Your task to perform on an android device: turn on data saver in the chrome app Image 0: 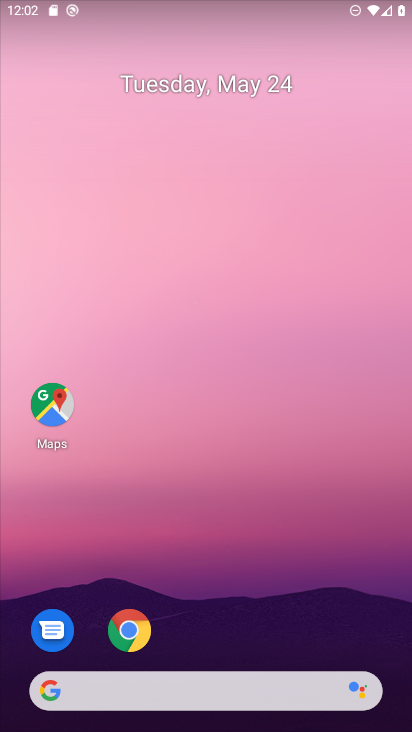
Step 0: click (133, 625)
Your task to perform on an android device: turn on data saver in the chrome app Image 1: 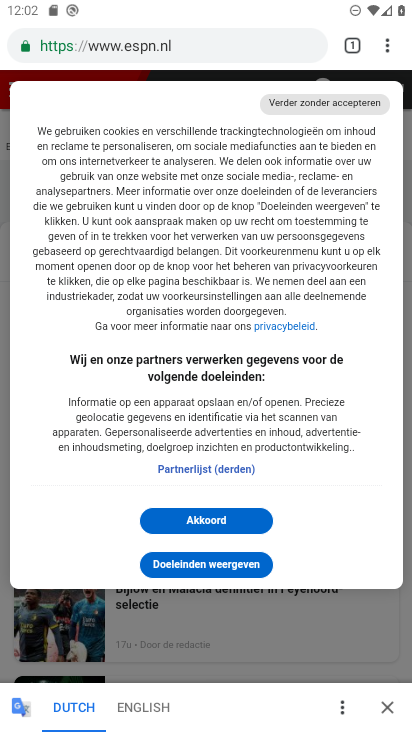
Step 1: click (387, 44)
Your task to perform on an android device: turn on data saver in the chrome app Image 2: 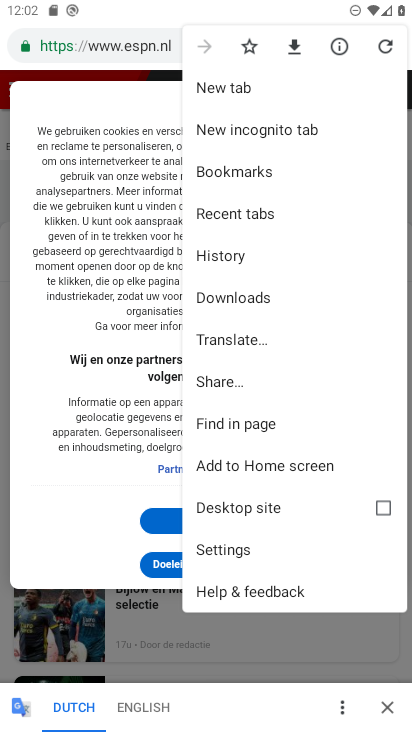
Step 2: click (229, 553)
Your task to perform on an android device: turn on data saver in the chrome app Image 3: 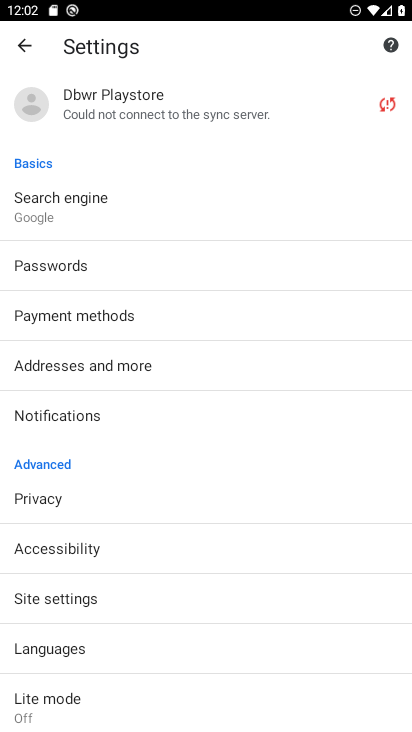
Step 3: click (52, 699)
Your task to perform on an android device: turn on data saver in the chrome app Image 4: 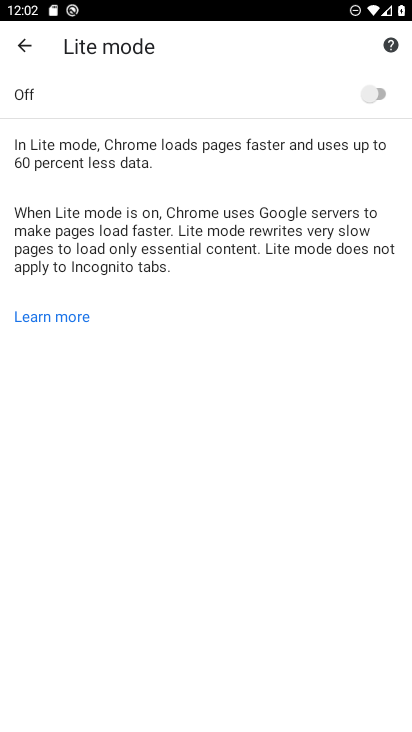
Step 4: click (374, 88)
Your task to perform on an android device: turn on data saver in the chrome app Image 5: 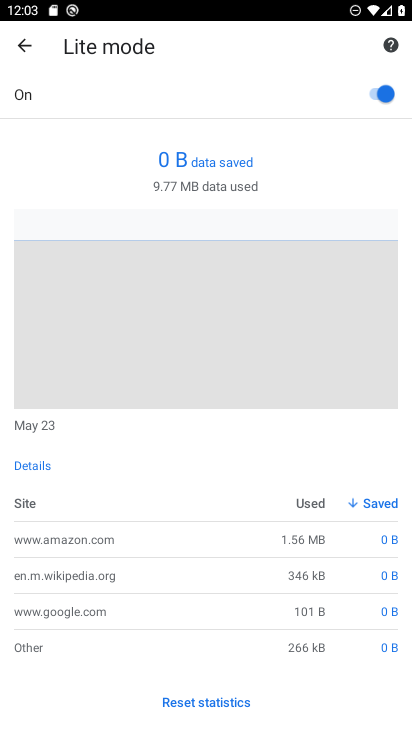
Step 5: task complete